Your task to perform on an android device: open app "Viber Messenger" Image 0: 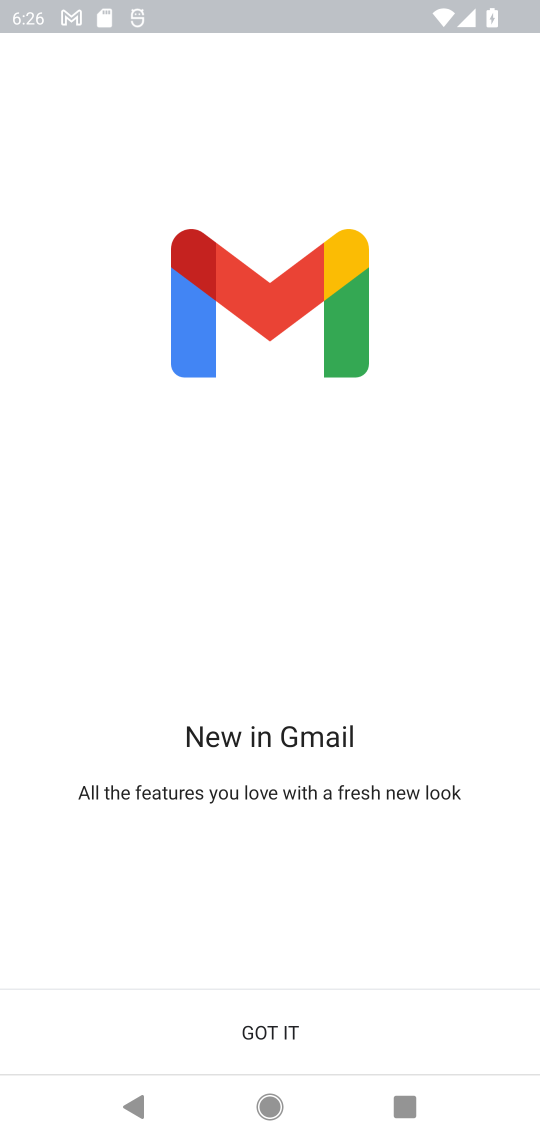
Step 0: press back button
Your task to perform on an android device: open app "Viber Messenger" Image 1: 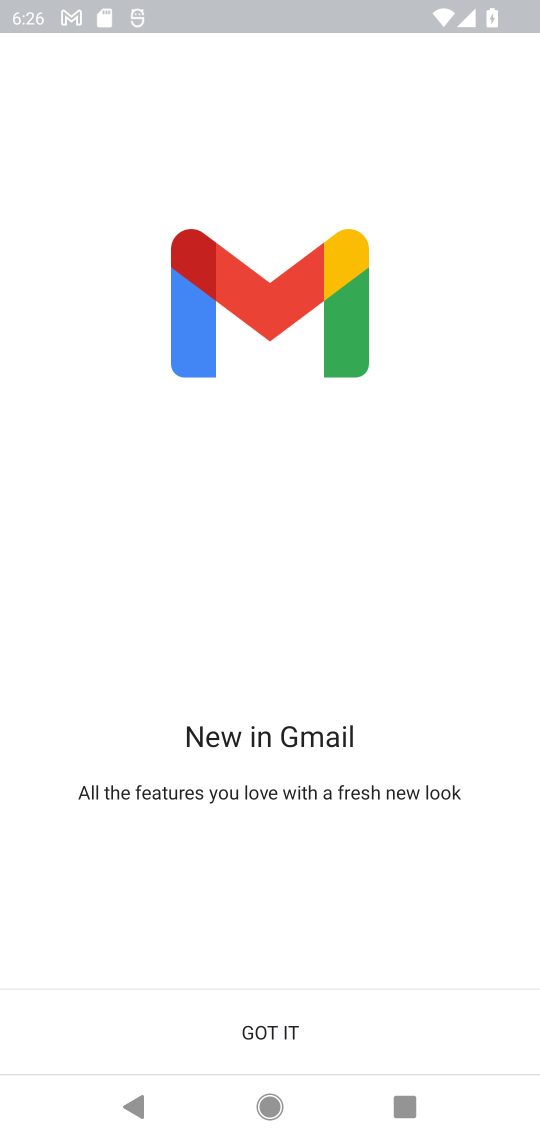
Step 1: press back button
Your task to perform on an android device: open app "Viber Messenger" Image 2: 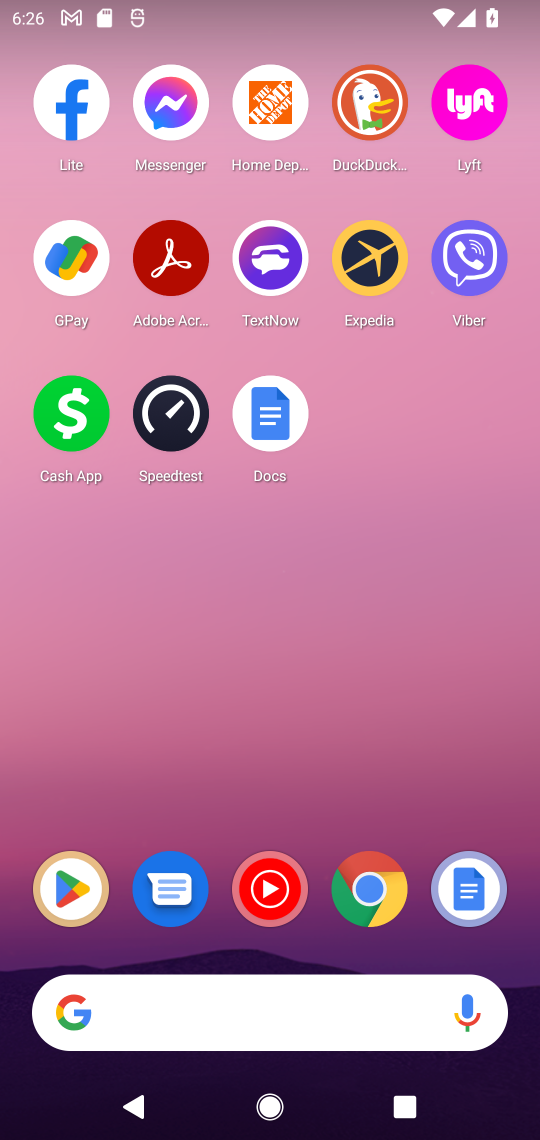
Step 2: drag from (278, 1018) to (293, 311)
Your task to perform on an android device: open app "Viber Messenger" Image 3: 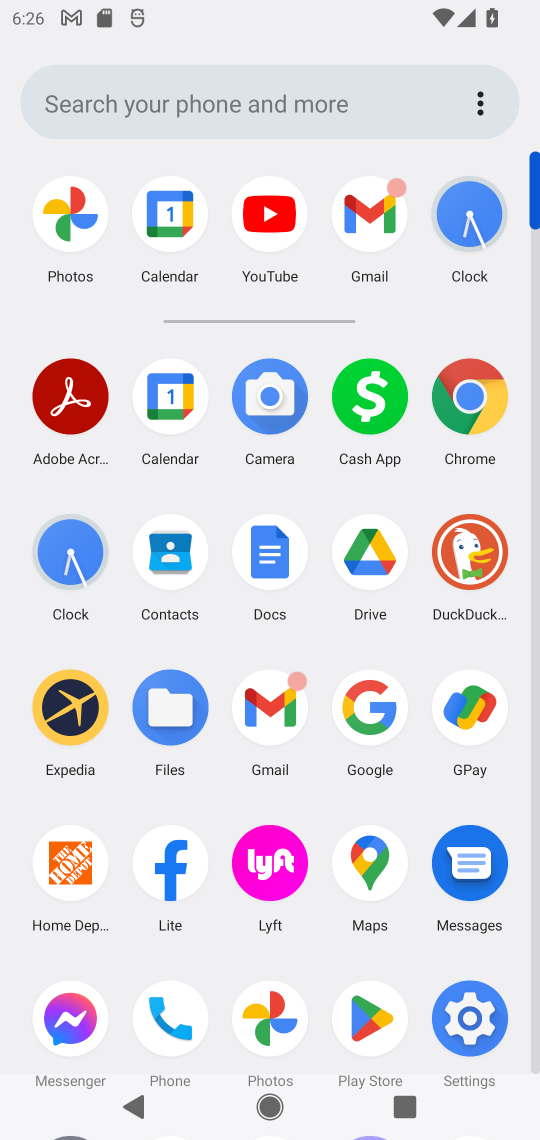
Step 3: click (378, 1011)
Your task to perform on an android device: open app "Viber Messenger" Image 4: 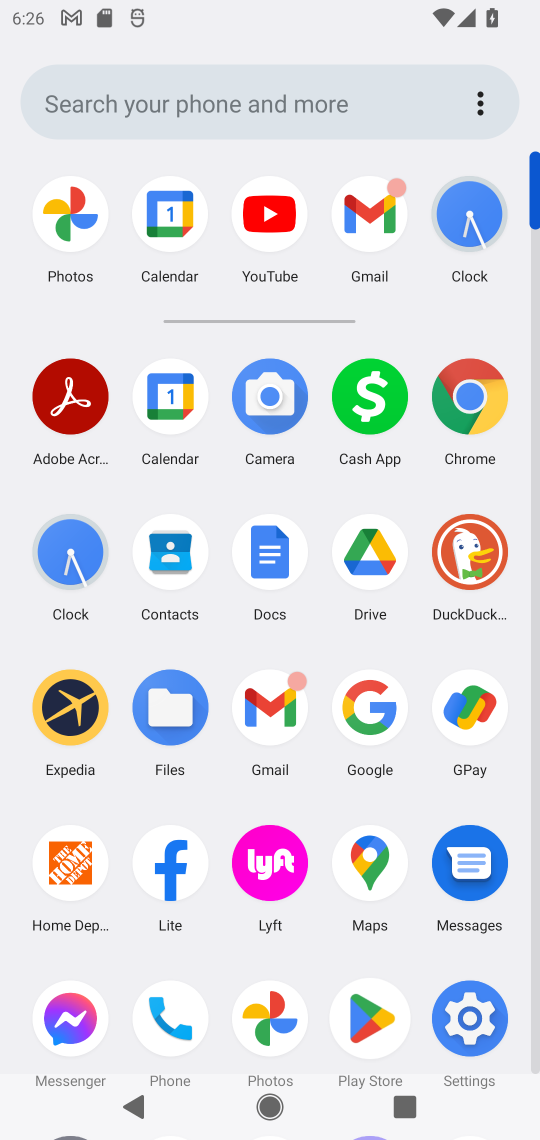
Step 4: click (356, 1015)
Your task to perform on an android device: open app "Viber Messenger" Image 5: 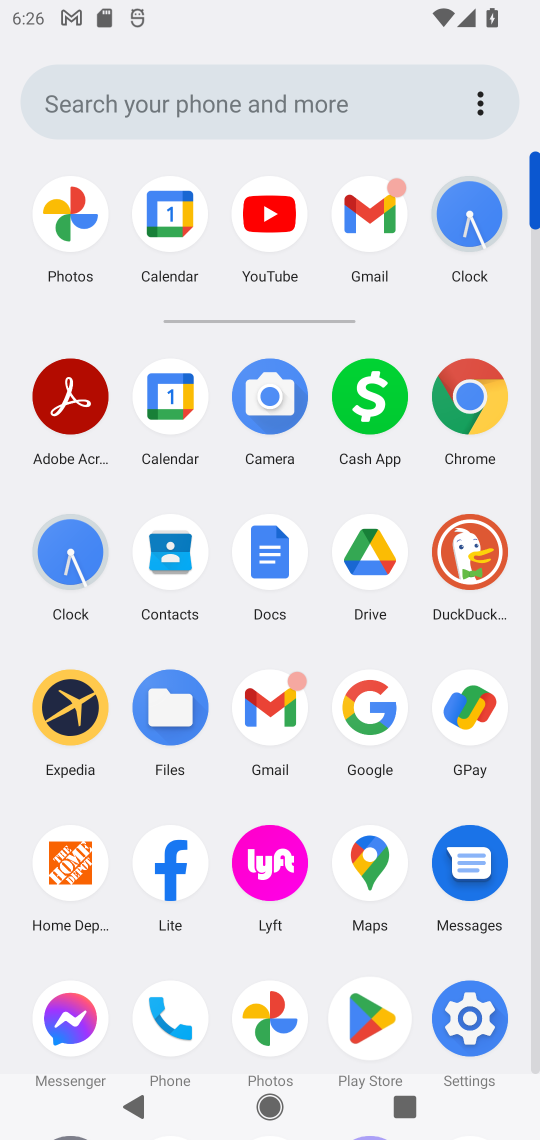
Step 5: click (359, 1011)
Your task to perform on an android device: open app "Viber Messenger" Image 6: 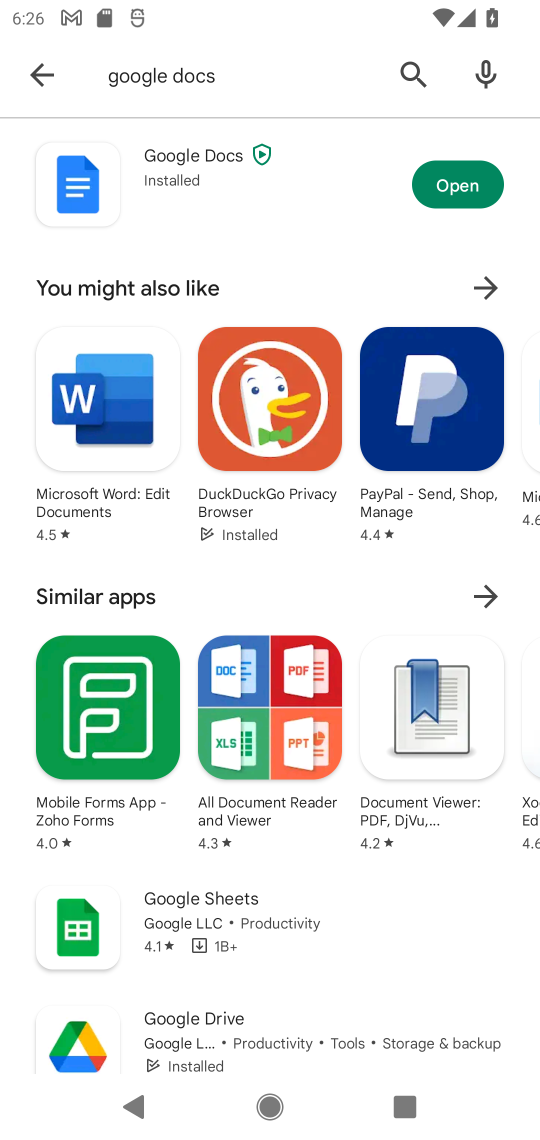
Step 6: click (363, 1014)
Your task to perform on an android device: open app "Viber Messenger" Image 7: 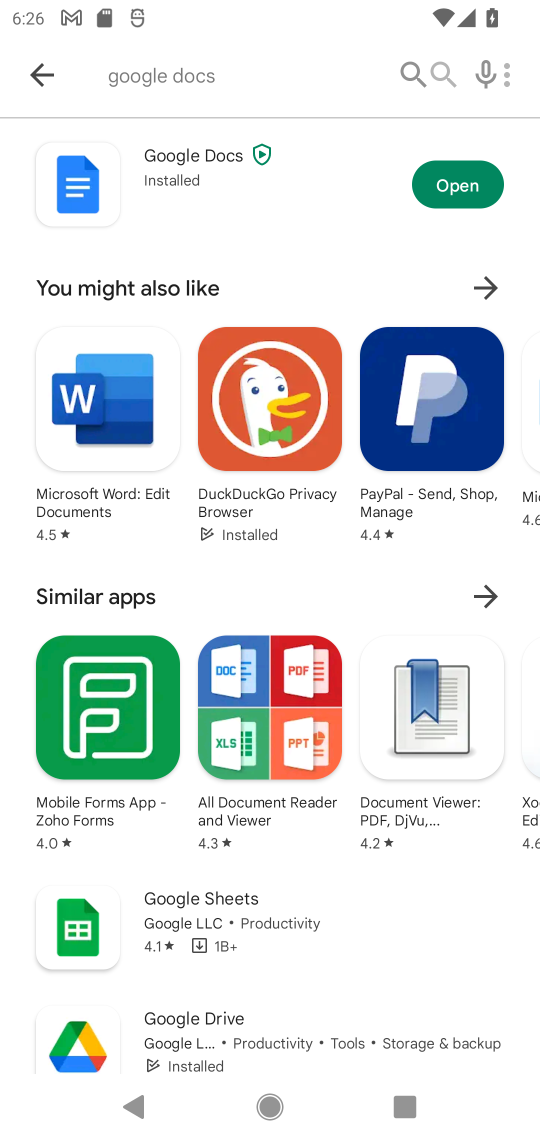
Step 7: click (31, 79)
Your task to perform on an android device: open app "Viber Messenger" Image 8: 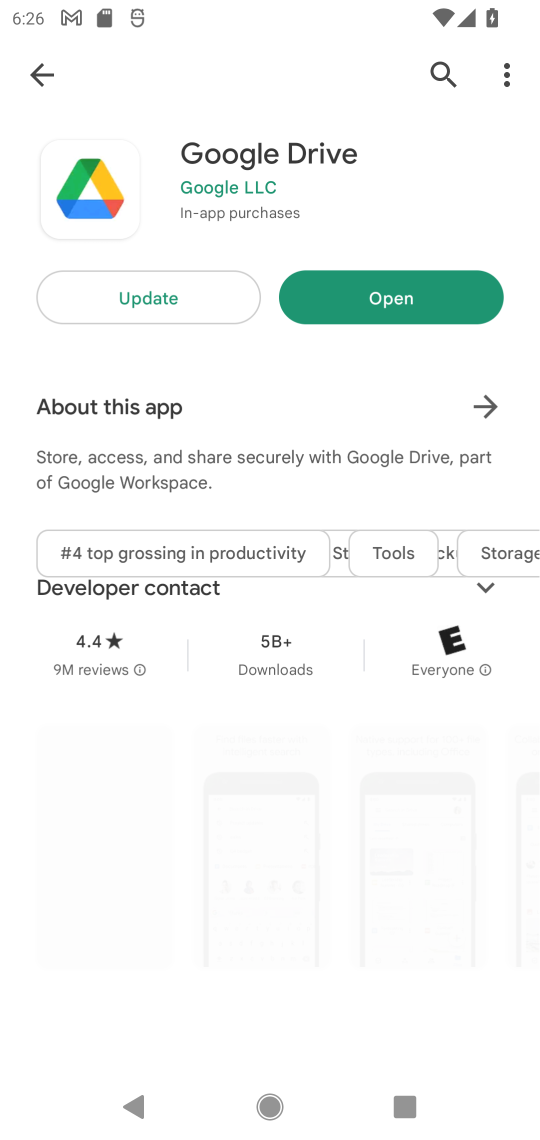
Step 8: click (30, 58)
Your task to perform on an android device: open app "Viber Messenger" Image 9: 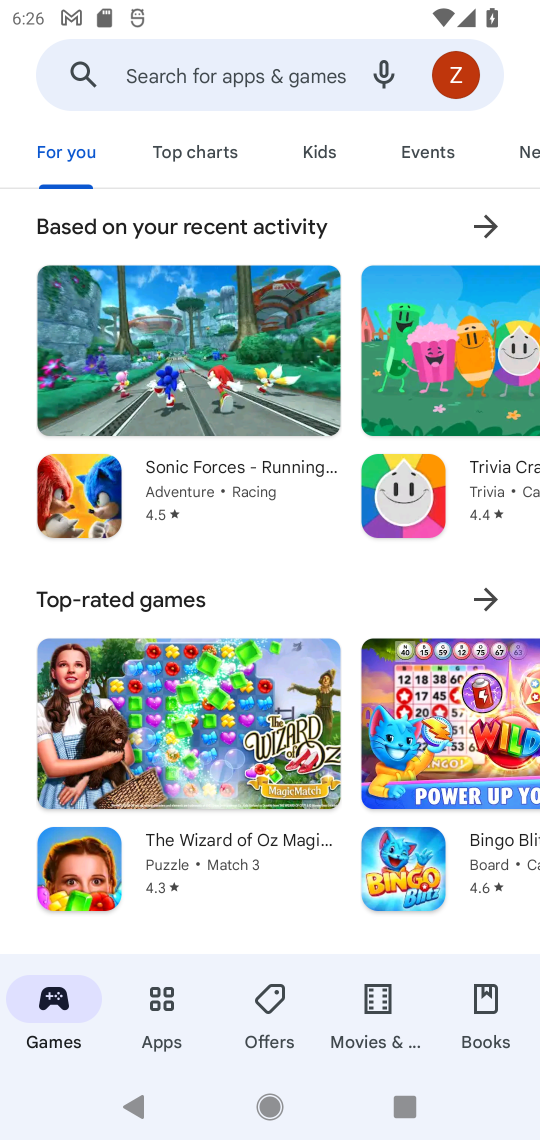
Step 9: click (38, 56)
Your task to perform on an android device: open app "Viber Messenger" Image 10: 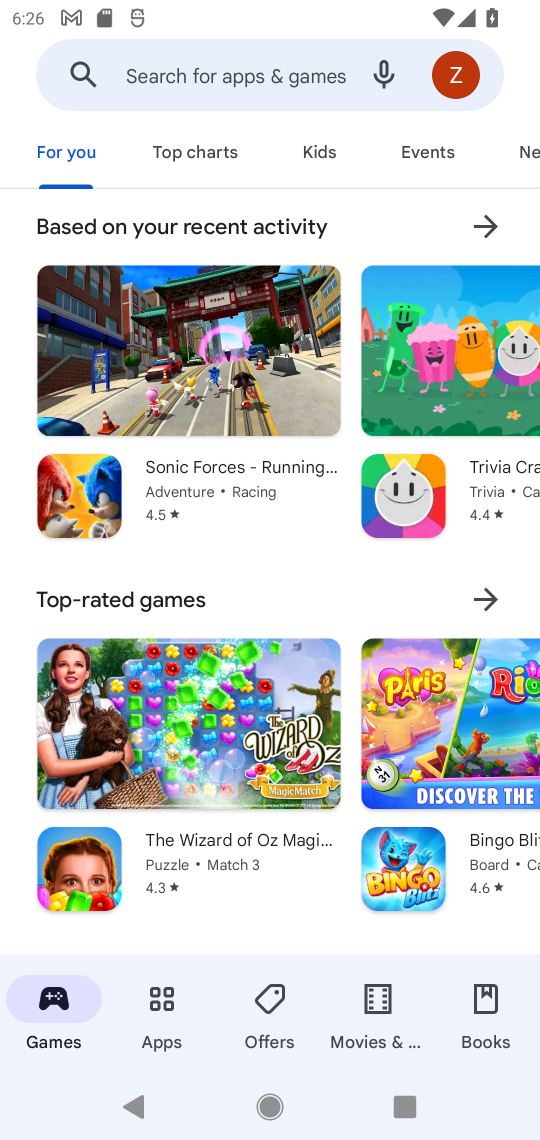
Step 10: click (139, 68)
Your task to perform on an android device: open app "Viber Messenger" Image 11: 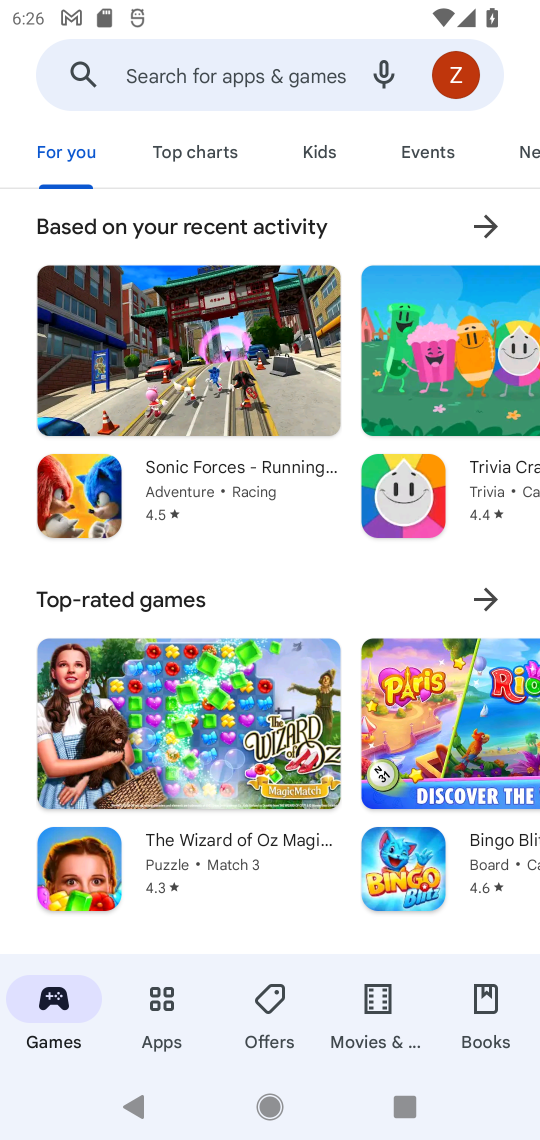
Step 11: click (140, 67)
Your task to perform on an android device: open app "Viber Messenger" Image 12: 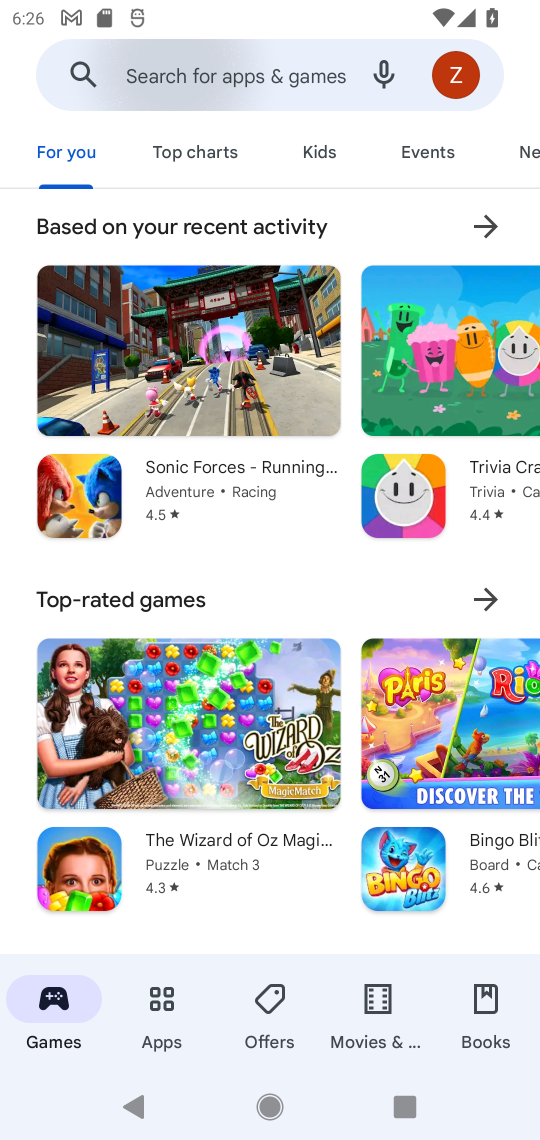
Step 12: click (142, 67)
Your task to perform on an android device: open app "Viber Messenger" Image 13: 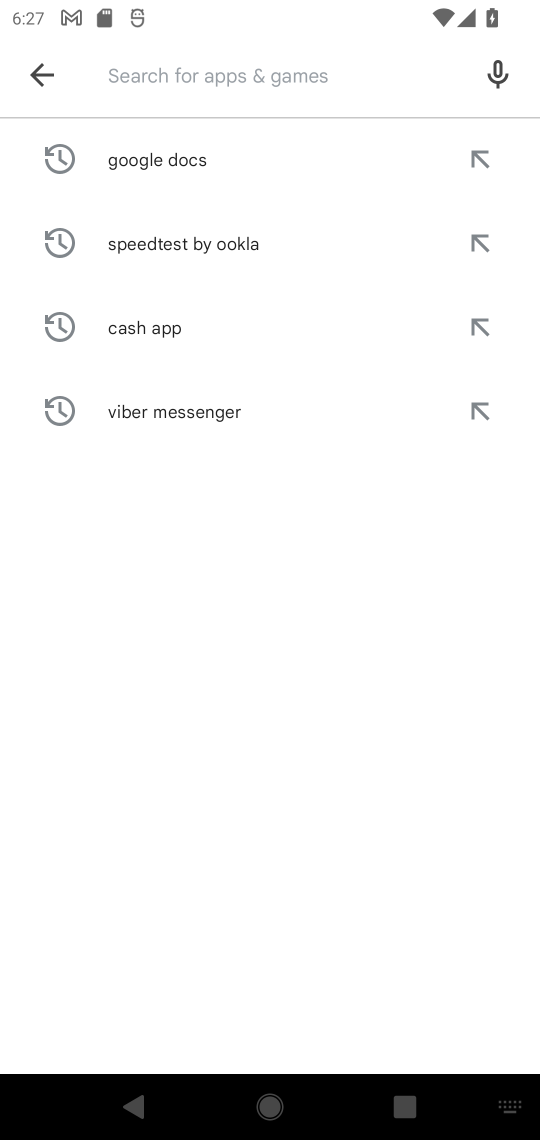
Step 13: type "viber messenger"
Your task to perform on an android device: open app "Viber Messenger" Image 14: 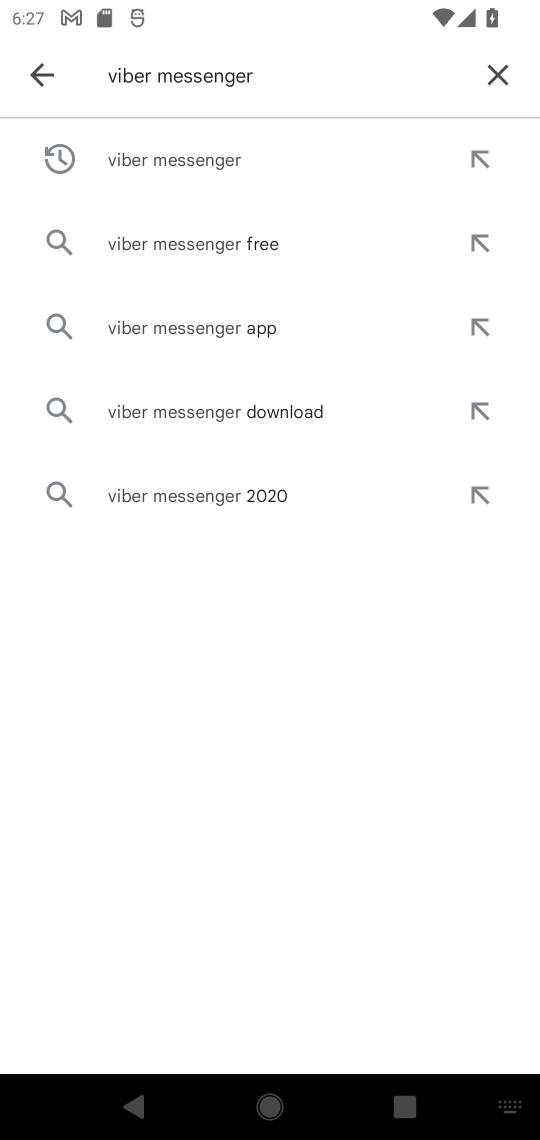
Step 14: click (166, 153)
Your task to perform on an android device: open app "Viber Messenger" Image 15: 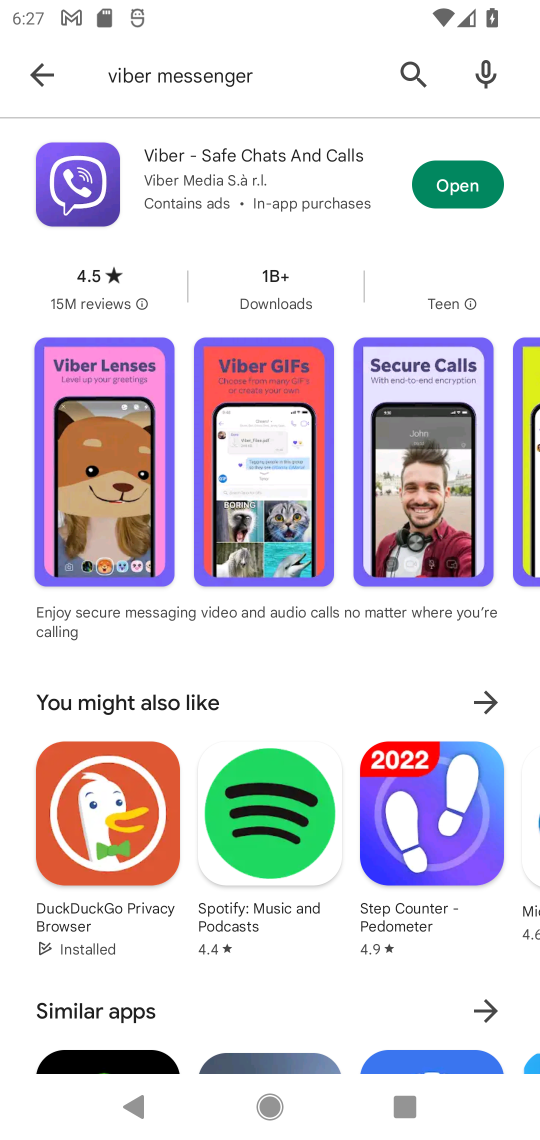
Step 15: click (478, 177)
Your task to perform on an android device: open app "Viber Messenger" Image 16: 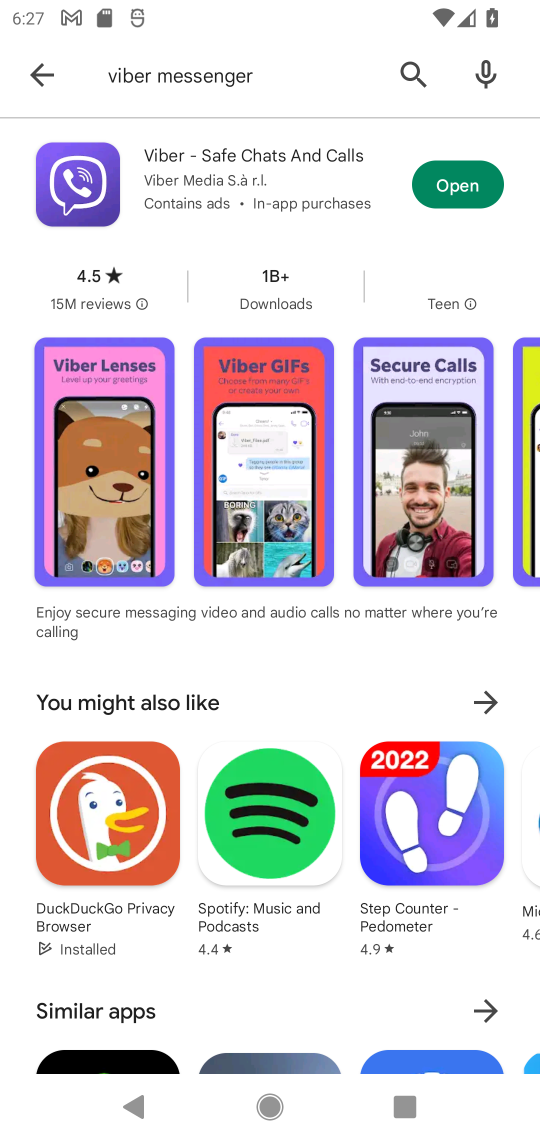
Step 16: click (475, 180)
Your task to perform on an android device: open app "Viber Messenger" Image 17: 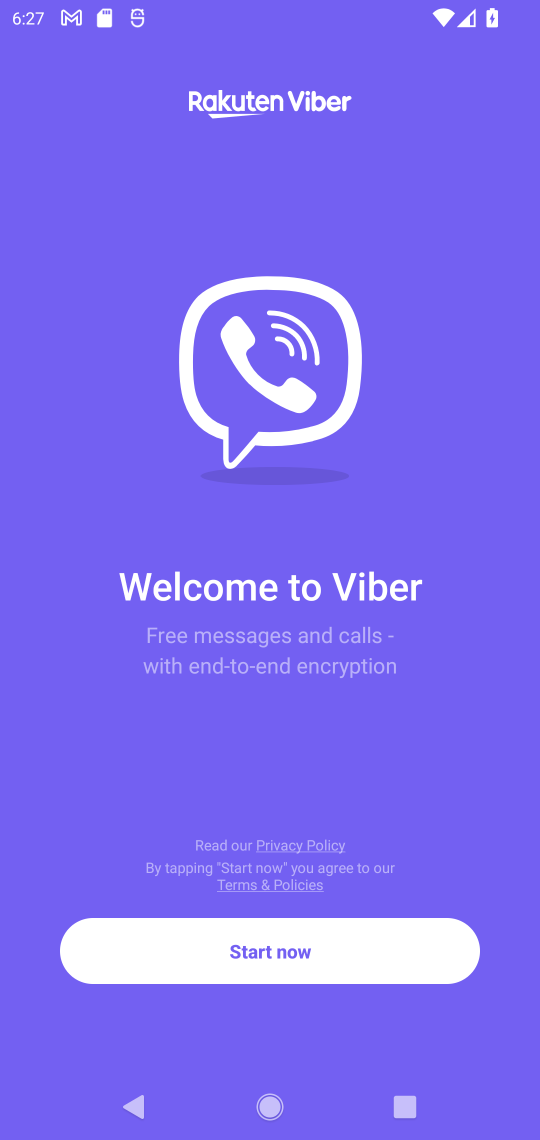
Step 17: click (265, 961)
Your task to perform on an android device: open app "Viber Messenger" Image 18: 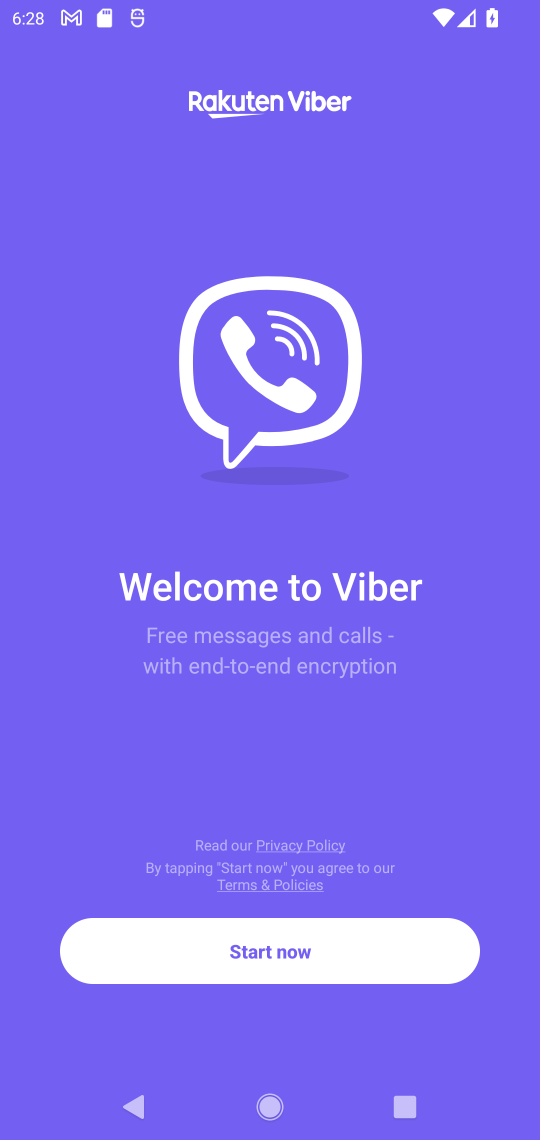
Step 18: click (267, 961)
Your task to perform on an android device: open app "Viber Messenger" Image 19: 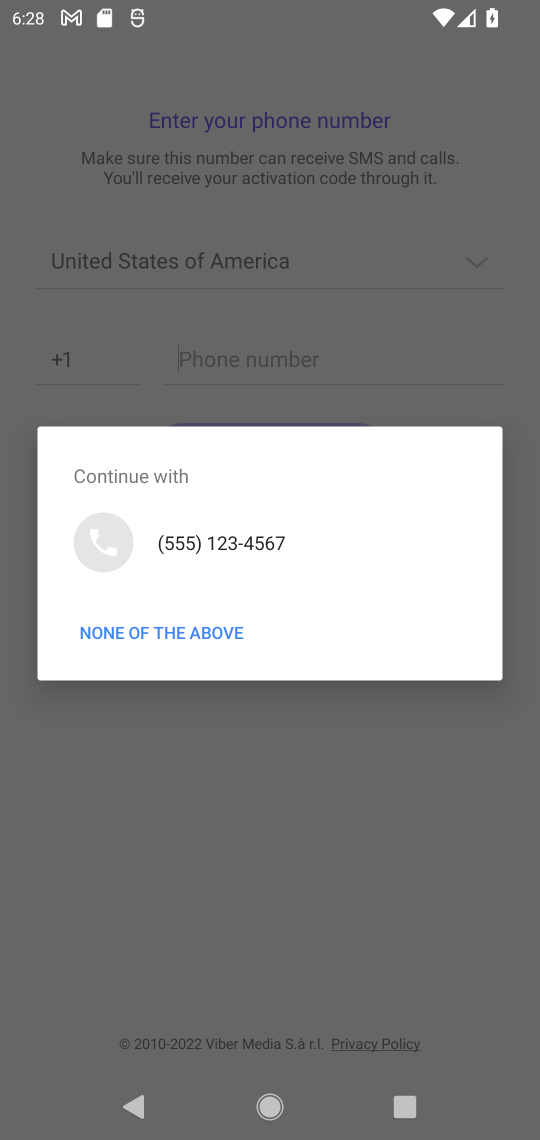
Step 19: click (207, 782)
Your task to perform on an android device: open app "Viber Messenger" Image 20: 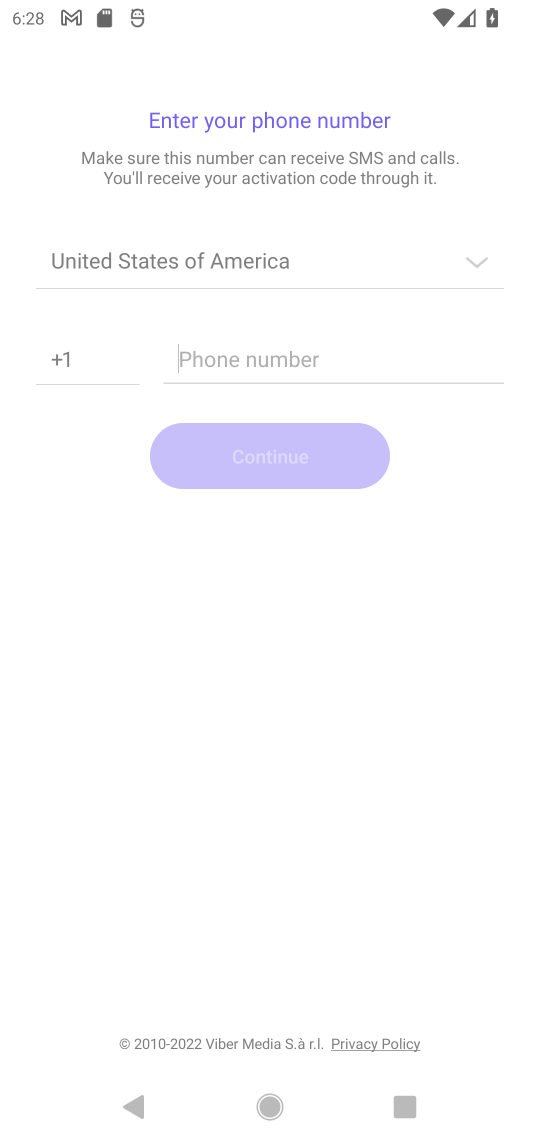
Step 20: click (207, 782)
Your task to perform on an android device: open app "Viber Messenger" Image 21: 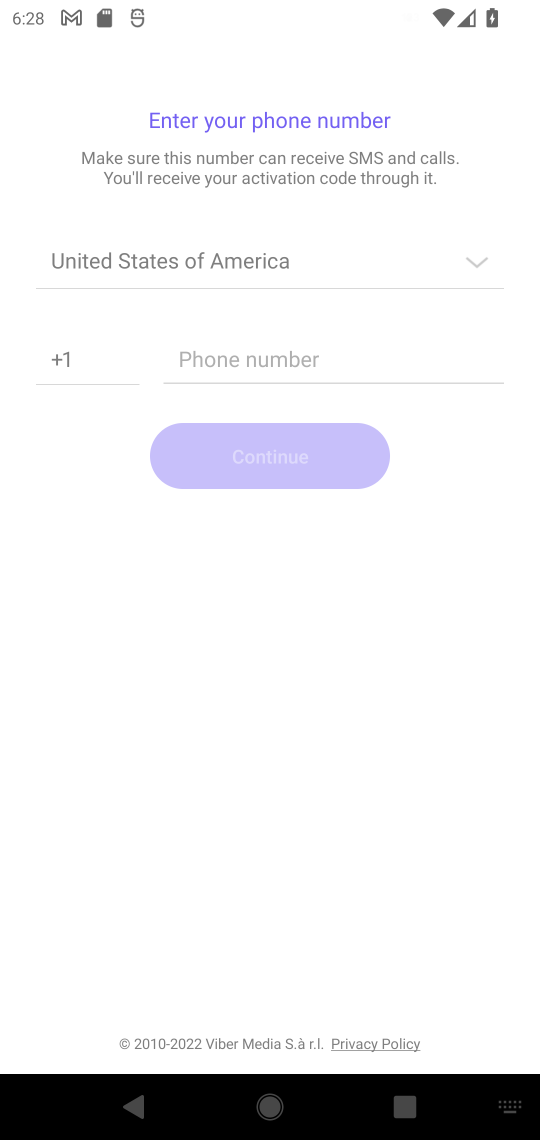
Step 21: click (206, 783)
Your task to perform on an android device: open app "Viber Messenger" Image 22: 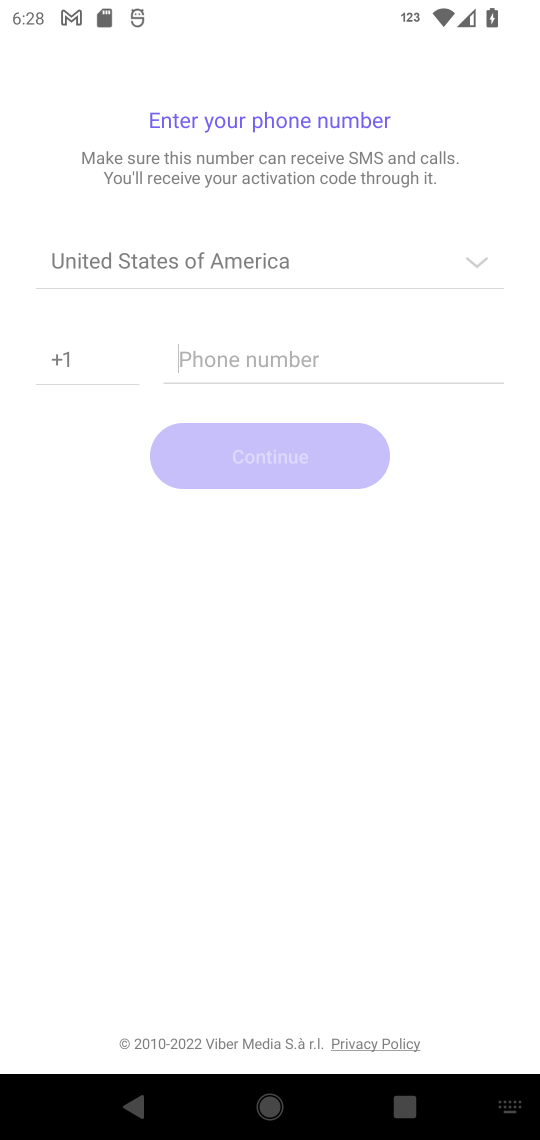
Step 22: click (206, 783)
Your task to perform on an android device: open app "Viber Messenger" Image 23: 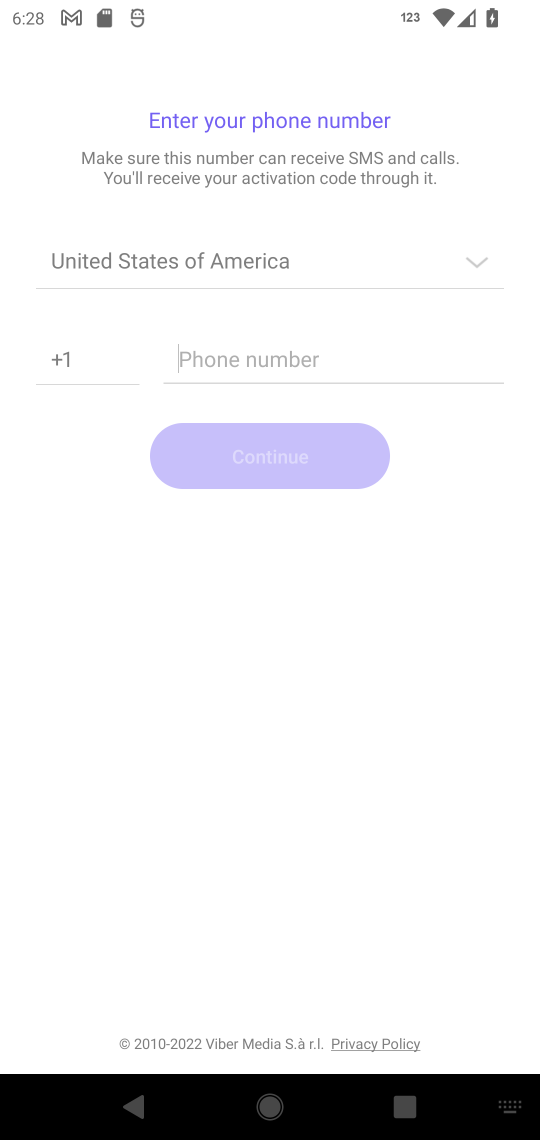
Step 23: task complete